Your task to perform on an android device: Play the last video I watched on Youtube Image 0: 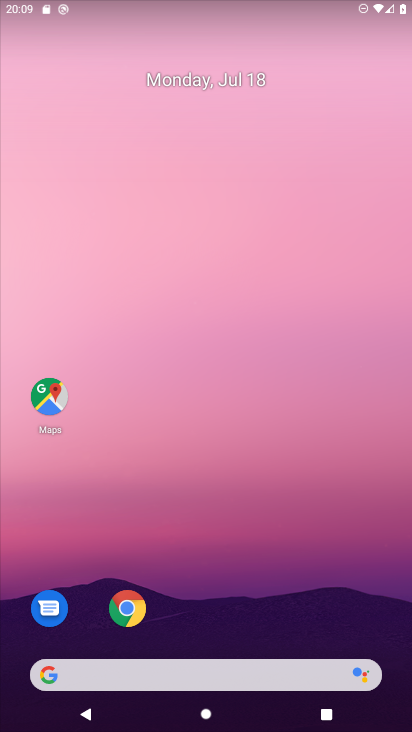
Step 0: drag from (187, 641) to (198, 173)
Your task to perform on an android device: Play the last video I watched on Youtube Image 1: 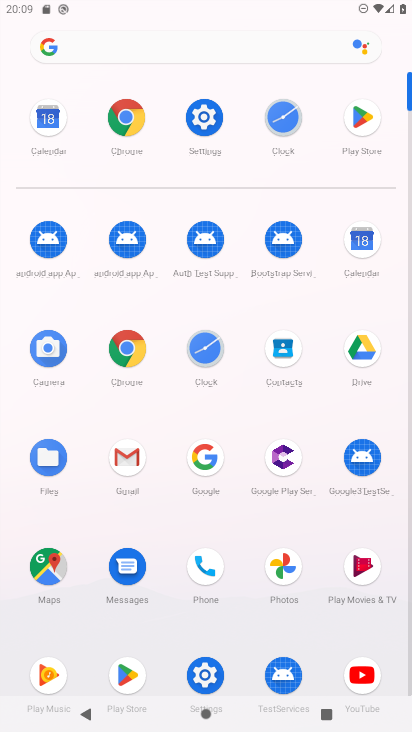
Step 1: click (362, 675)
Your task to perform on an android device: Play the last video I watched on Youtube Image 2: 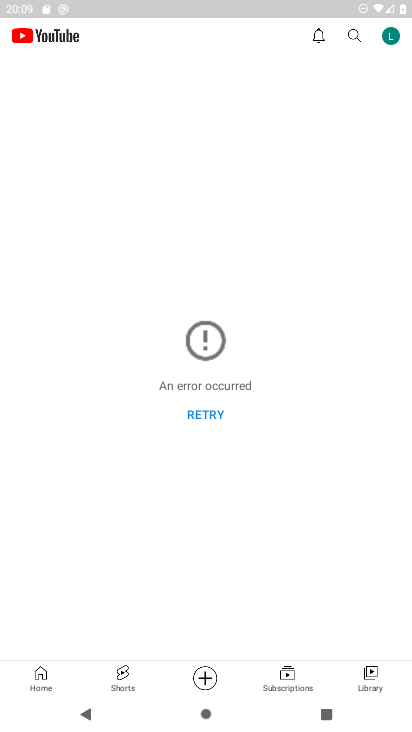
Step 2: click (353, 41)
Your task to perform on an android device: Play the last video I watched on Youtube Image 3: 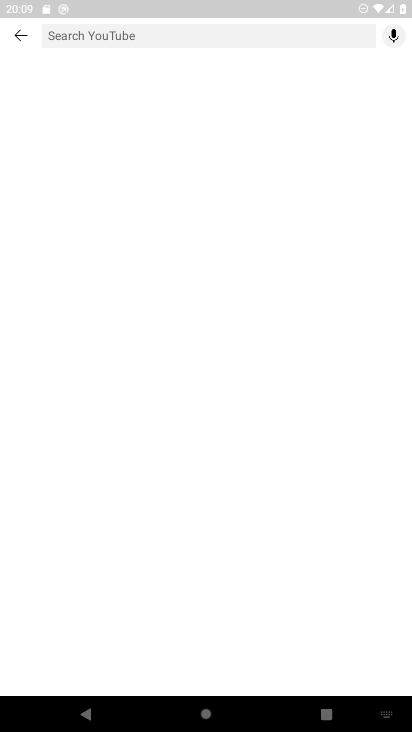
Step 3: task complete